Your task to perform on an android device: Go to privacy settings Image 0: 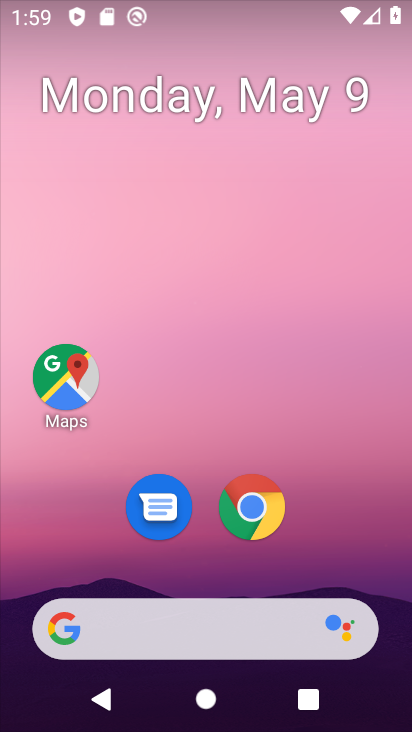
Step 0: drag from (202, 459) to (233, 4)
Your task to perform on an android device: Go to privacy settings Image 1: 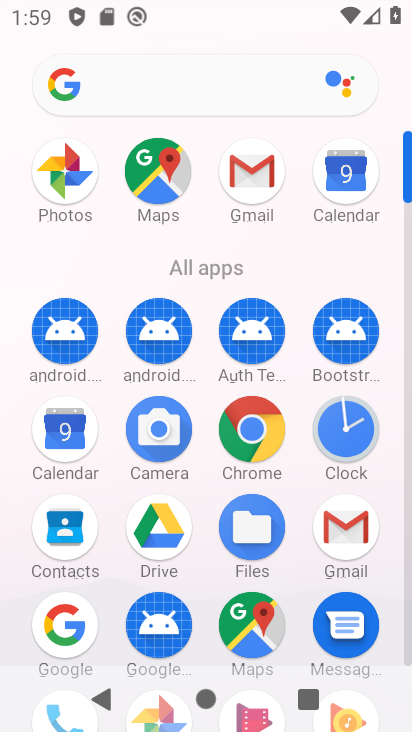
Step 1: drag from (199, 532) to (218, 60)
Your task to perform on an android device: Go to privacy settings Image 2: 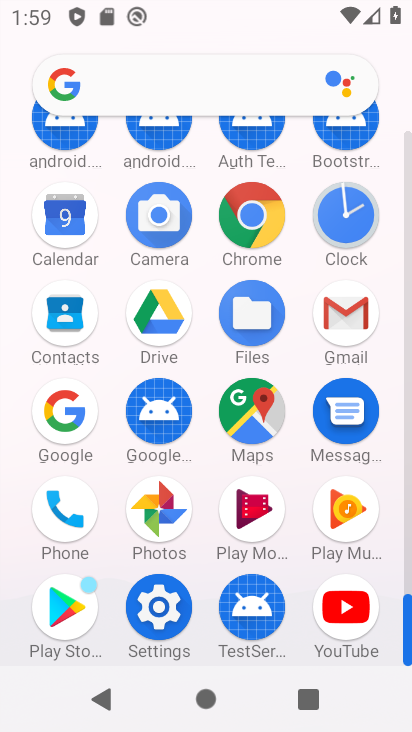
Step 2: click (158, 605)
Your task to perform on an android device: Go to privacy settings Image 3: 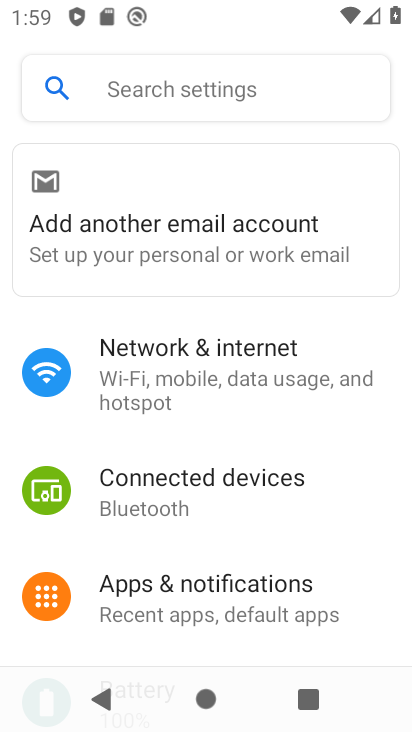
Step 3: drag from (199, 540) to (235, 49)
Your task to perform on an android device: Go to privacy settings Image 4: 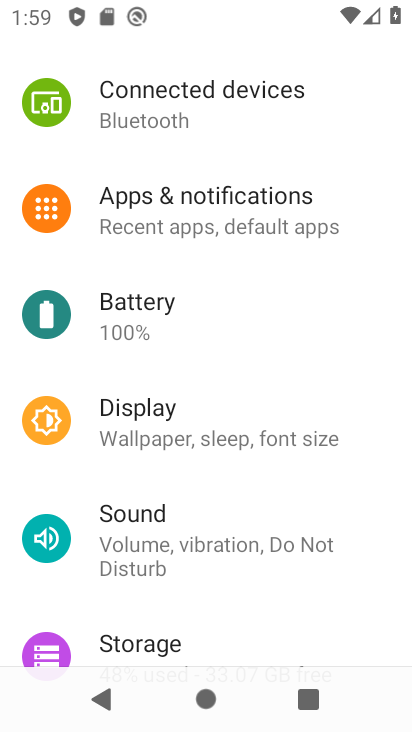
Step 4: drag from (178, 559) to (213, 220)
Your task to perform on an android device: Go to privacy settings Image 5: 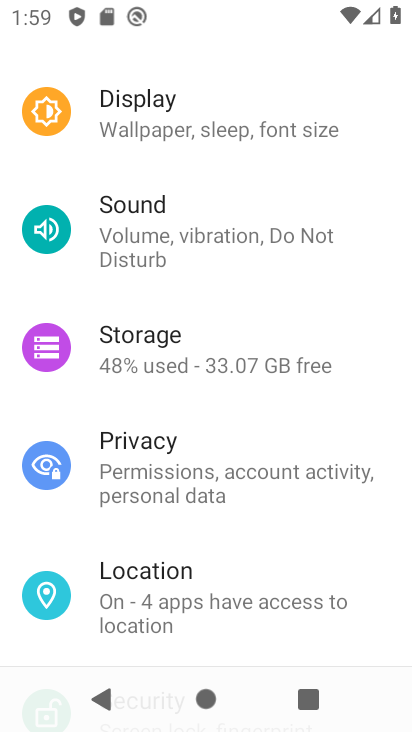
Step 5: click (183, 446)
Your task to perform on an android device: Go to privacy settings Image 6: 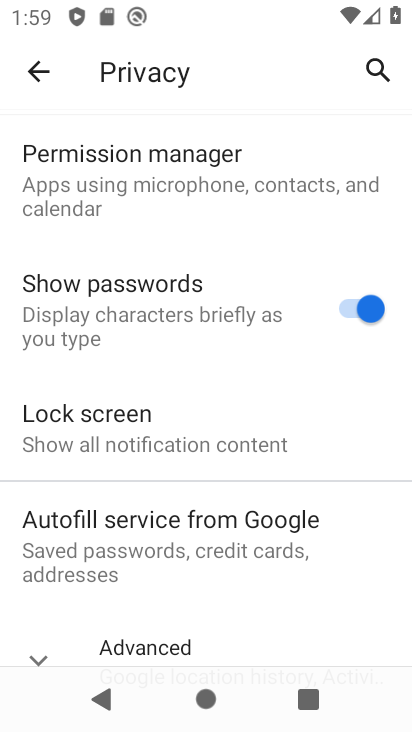
Step 6: task complete